Your task to perform on an android device: Open battery settings Image 0: 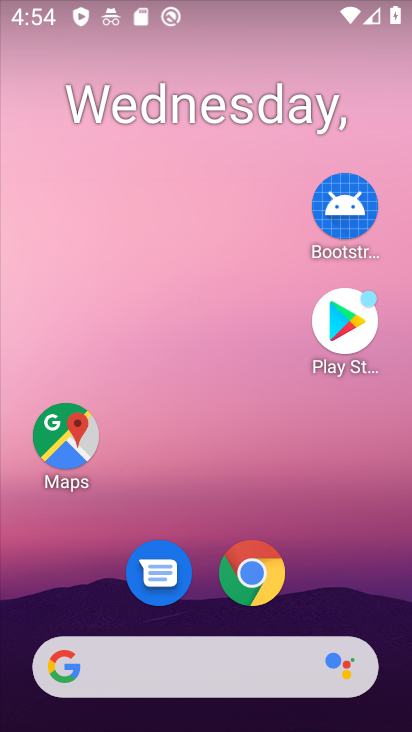
Step 0: click (247, 35)
Your task to perform on an android device: Open battery settings Image 1: 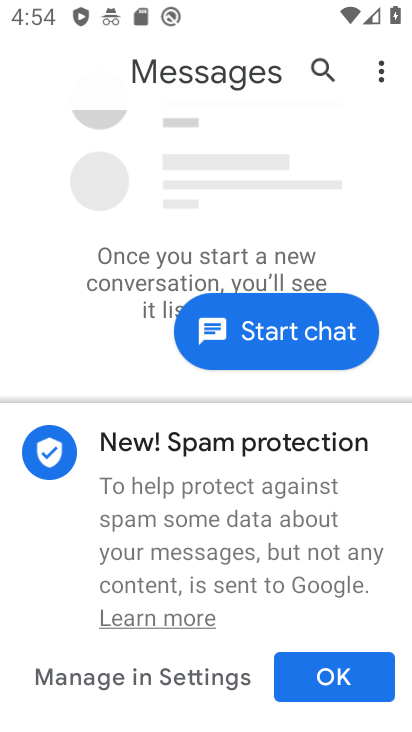
Step 1: press home button
Your task to perform on an android device: Open battery settings Image 2: 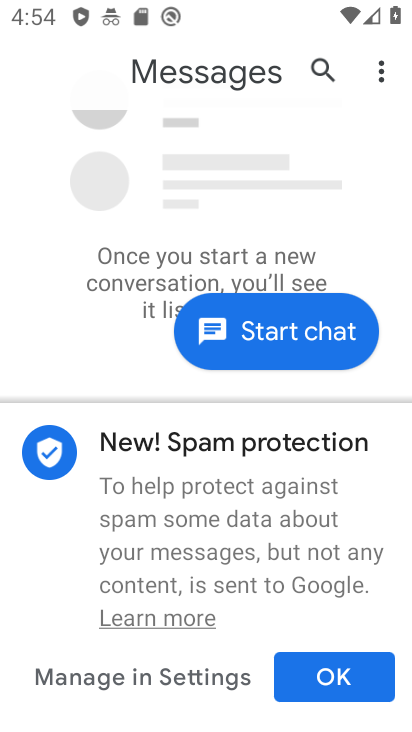
Step 2: press home button
Your task to perform on an android device: Open battery settings Image 3: 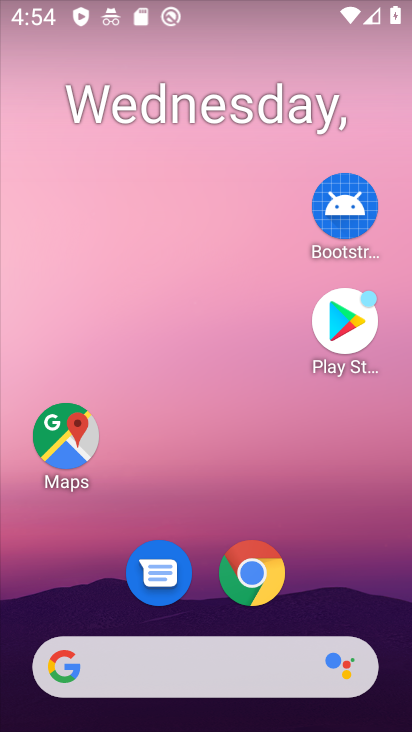
Step 3: drag from (239, 441) to (123, 35)
Your task to perform on an android device: Open battery settings Image 4: 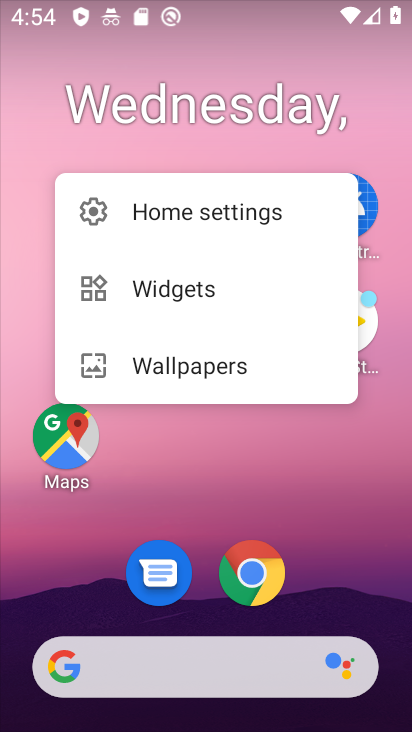
Step 4: drag from (272, 518) to (303, 63)
Your task to perform on an android device: Open battery settings Image 5: 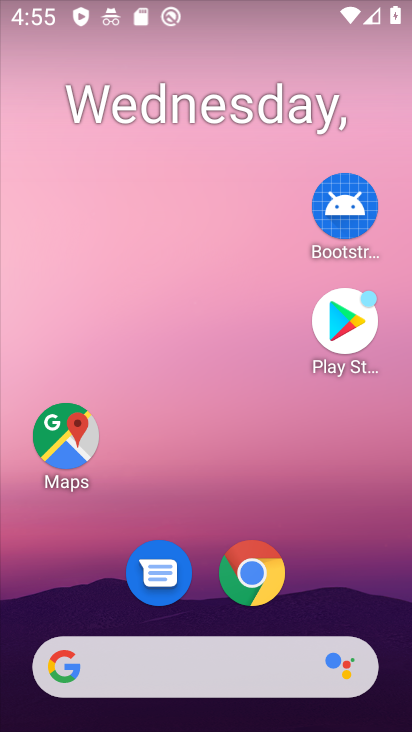
Step 5: drag from (358, 573) to (299, 56)
Your task to perform on an android device: Open battery settings Image 6: 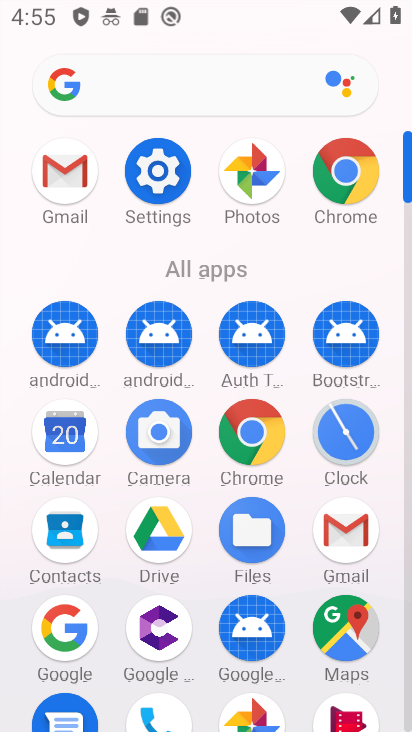
Step 6: click (134, 155)
Your task to perform on an android device: Open battery settings Image 7: 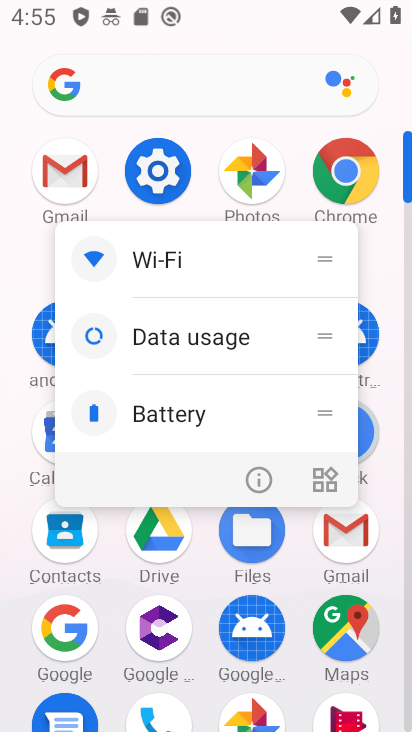
Step 7: click (132, 155)
Your task to perform on an android device: Open battery settings Image 8: 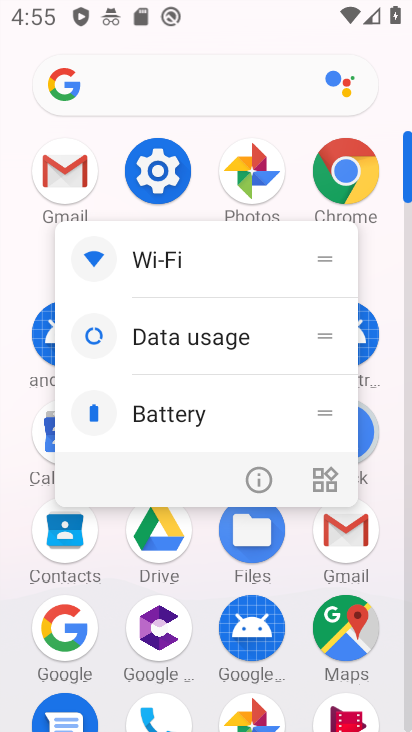
Step 8: click (135, 411)
Your task to perform on an android device: Open battery settings Image 9: 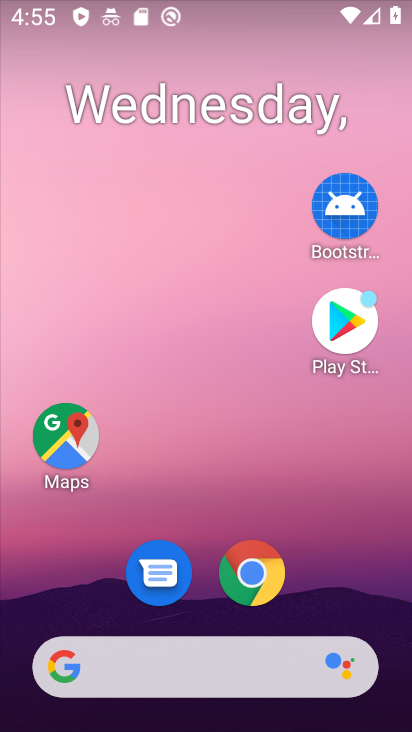
Step 9: drag from (145, 404) to (159, 8)
Your task to perform on an android device: Open battery settings Image 10: 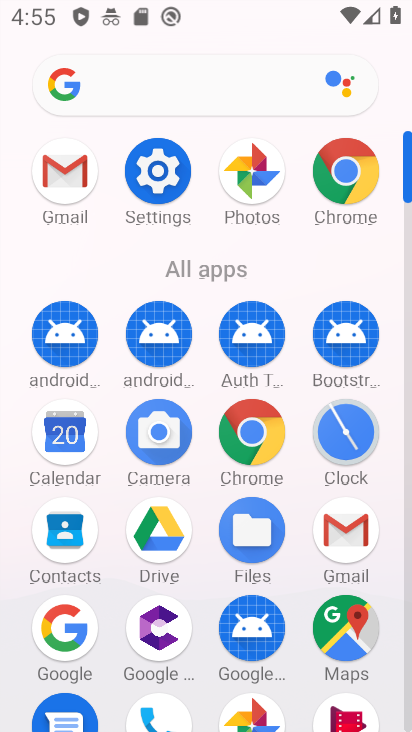
Step 10: click (146, 146)
Your task to perform on an android device: Open battery settings Image 11: 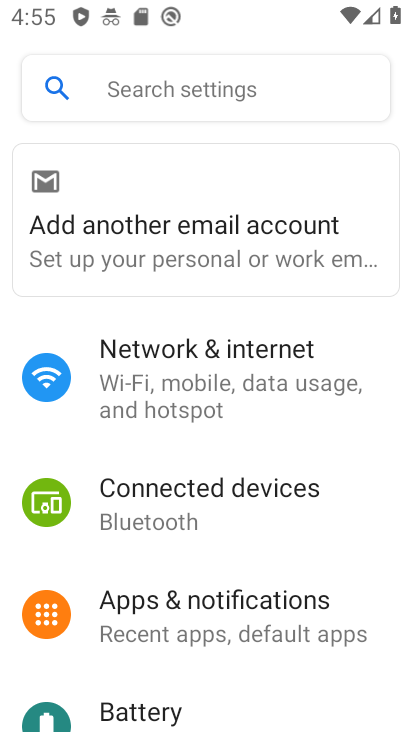
Step 11: click (172, 705)
Your task to perform on an android device: Open battery settings Image 12: 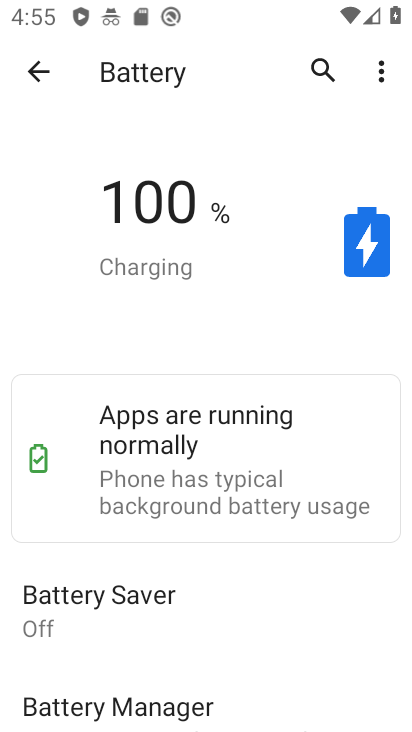
Step 12: task complete